Your task to perform on an android device: turn off notifications in google photos Image 0: 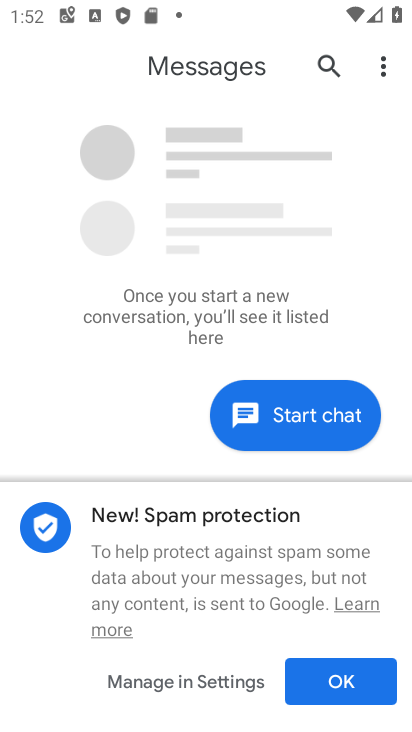
Step 0: press home button
Your task to perform on an android device: turn off notifications in google photos Image 1: 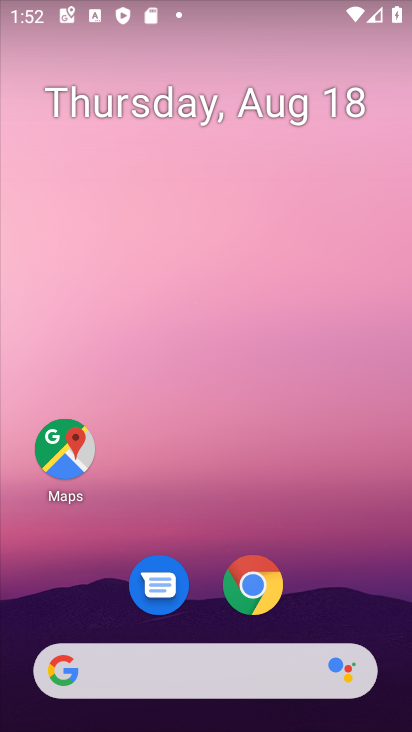
Step 1: drag from (310, 512) to (291, 0)
Your task to perform on an android device: turn off notifications in google photos Image 2: 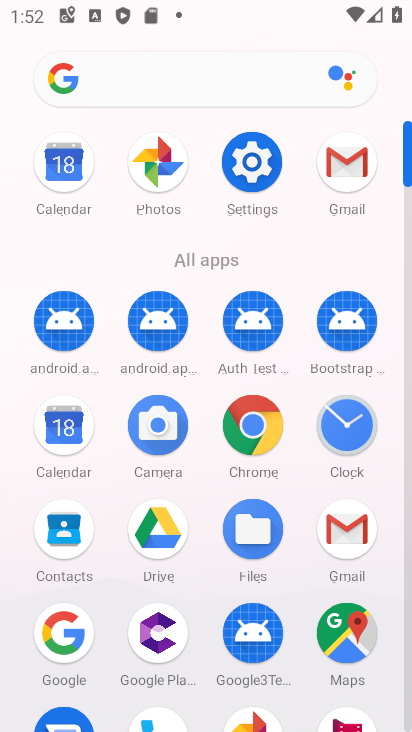
Step 2: click (161, 152)
Your task to perform on an android device: turn off notifications in google photos Image 3: 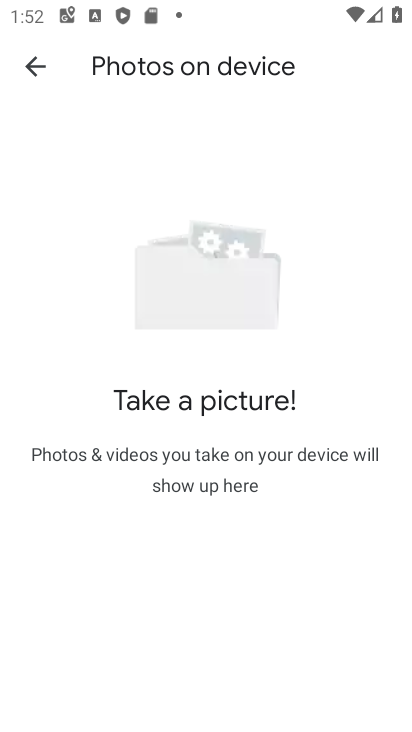
Step 3: click (39, 66)
Your task to perform on an android device: turn off notifications in google photos Image 4: 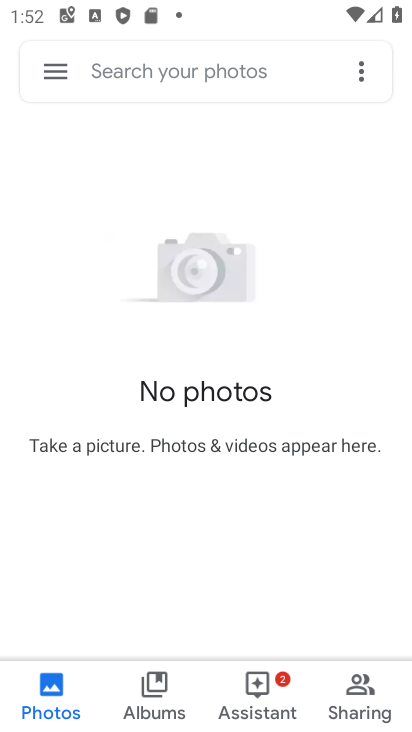
Step 4: click (49, 65)
Your task to perform on an android device: turn off notifications in google photos Image 5: 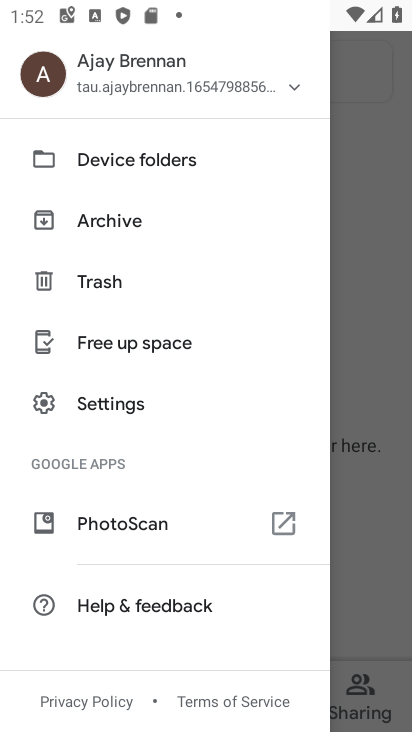
Step 5: click (132, 397)
Your task to perform on an android device: turn off notifications in google photos Image 6: 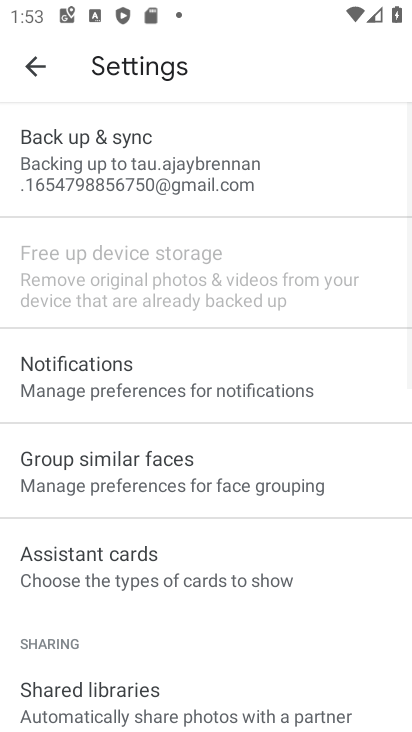
Step 6: click (176, 380)
Your task to perform on an android device: turn off notifications in google photos Image 7: 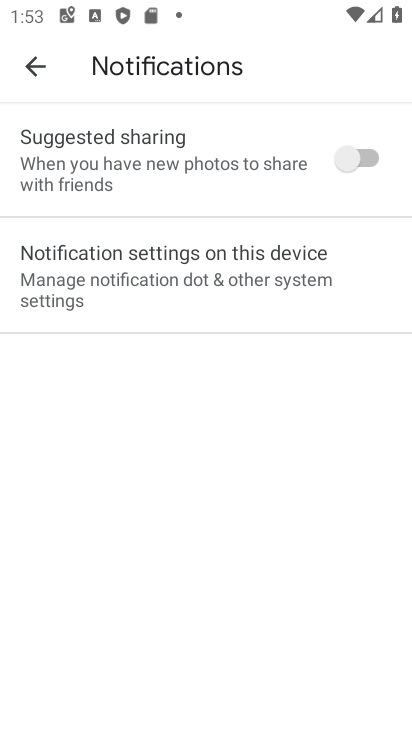
Step 7: click (220, 278)
Your task to perform on an android device: turn off notifications in google photos Image 8: 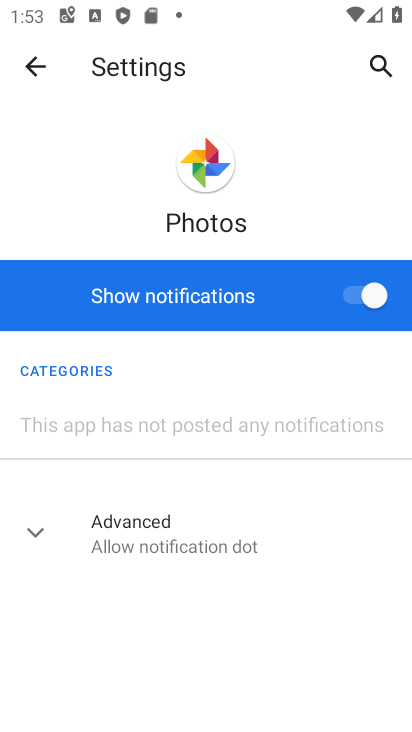
Step 8: click (362, 298)
Your task to perform on an android device: turn off notifications in google photos Image 9: 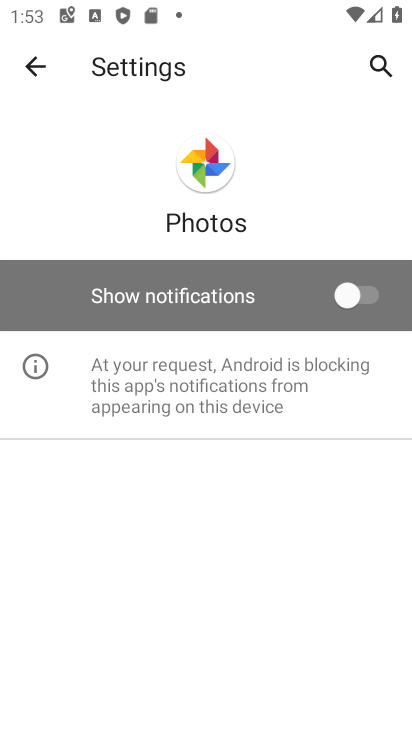
Step 9: task complete